Your task to perform on an android device: What's on my calendar today? Image 0: 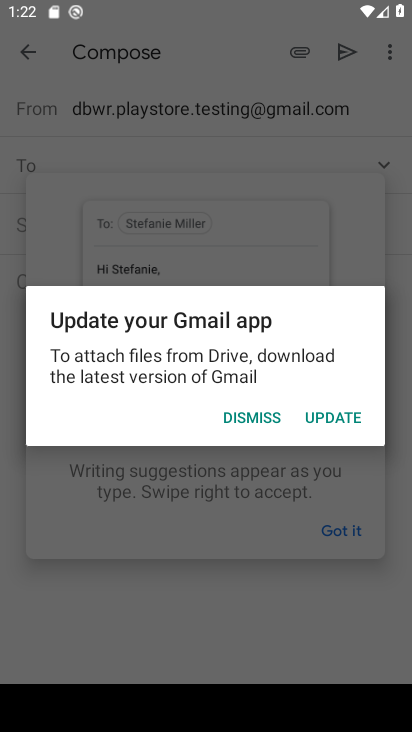
Step 0: press home button
Your task to perform on an android device: What's on my calendar today? Image 1: 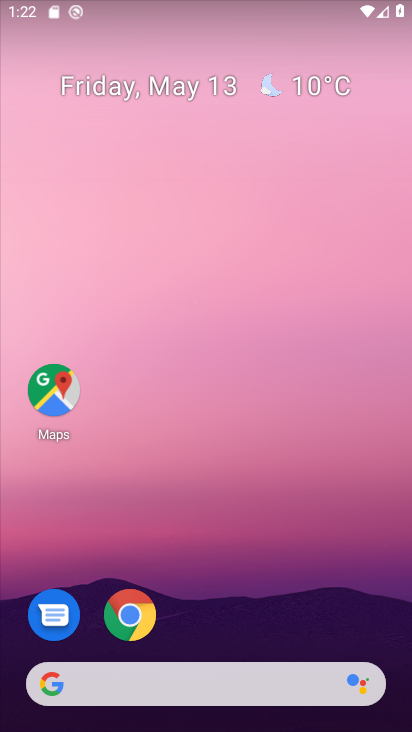
Step 1: drag from (179, 659) to (261, 220)
Your task to perform on an android device: What's on my calendar today? Image 2: 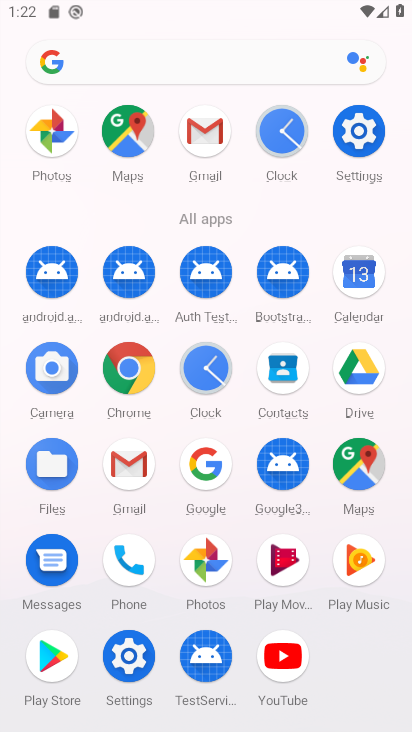
Step 2: click (360, 279)
Your task to perform on an android device: What's on my calendar today? Image 3: 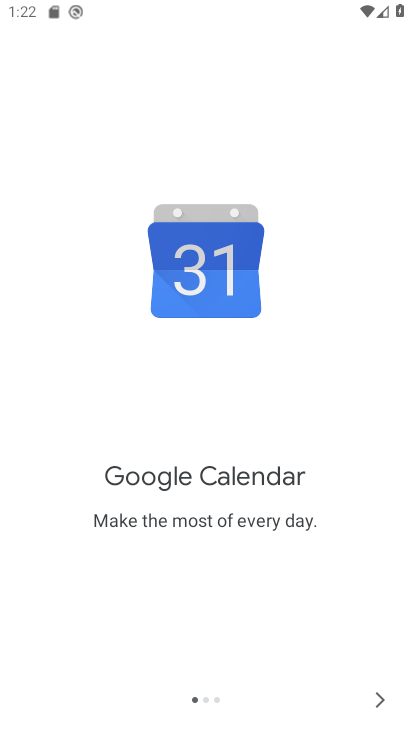
Step 3: click (383, 696)
Your task to perform on an android device: What's on my calendar today? Image 4: 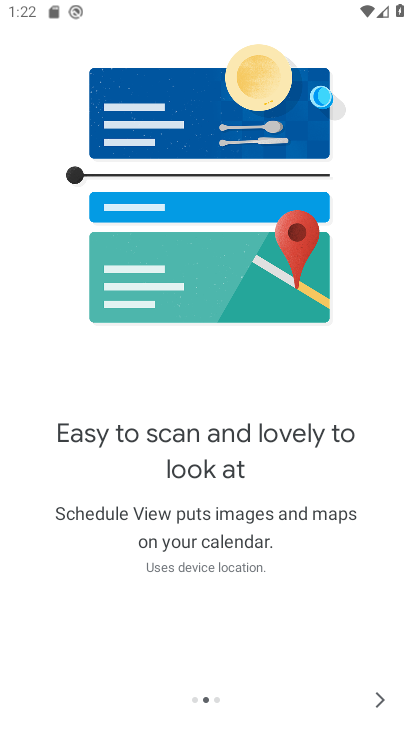
Step 4: click (383, 696)
Your task to perform on an android device: What's on my calendar today? Image 5: 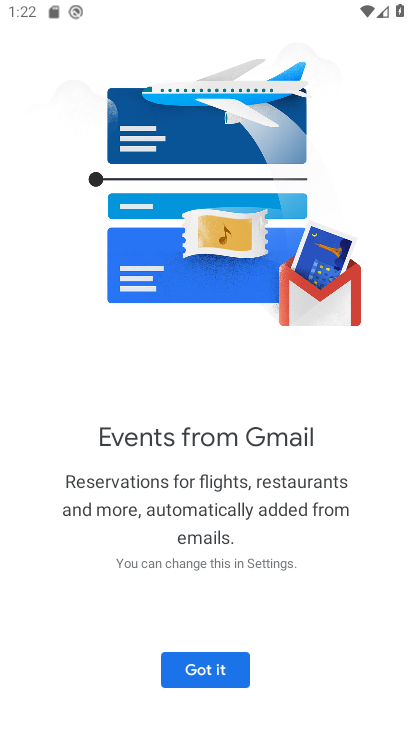
Step 5: click (224, 656)
Your task to perform on an android device: What's on my calendar today? Image 6: 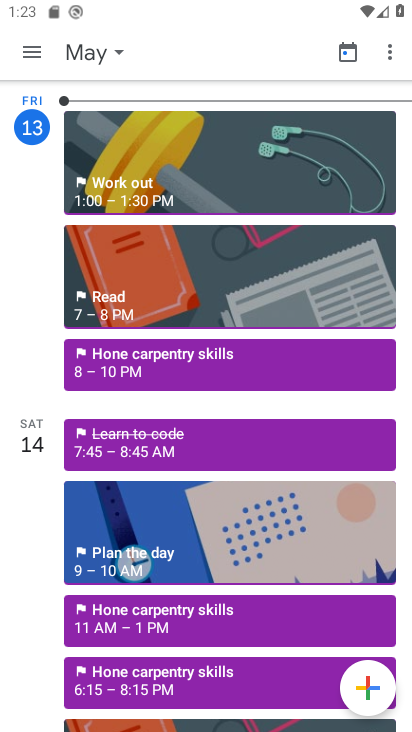
Step 6: task complete